Your task to perform on an android device: delete browsing data in the chrome app Image 0: 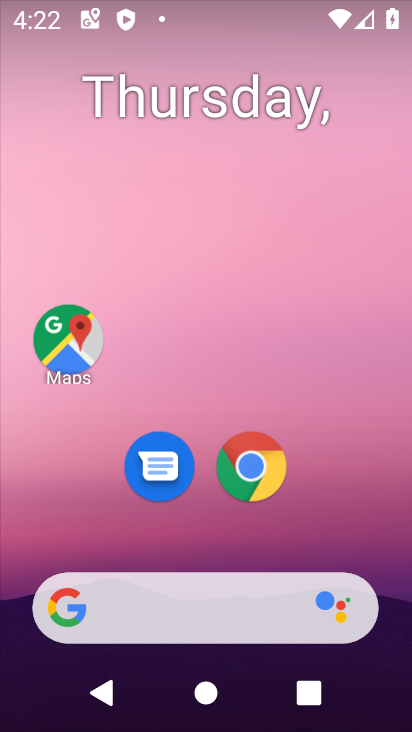
Step 0: click (265, 467)
Your task to perform on an android device: delete browsing data in the chrome app Image 1: 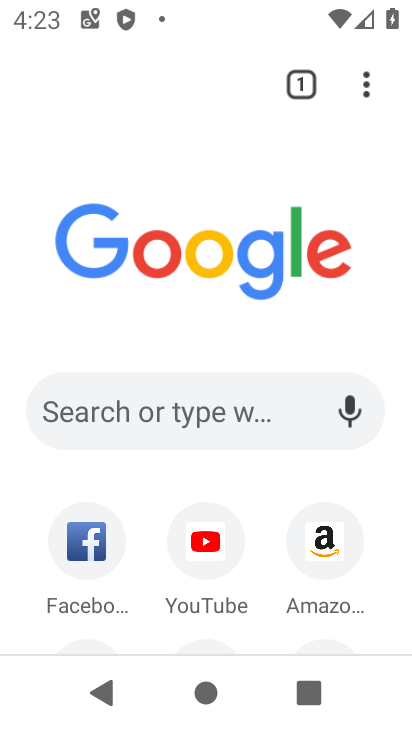
Step 1: task complete